Your task to perform on an android device: turn off notifications settings in the gmail app Image 0: 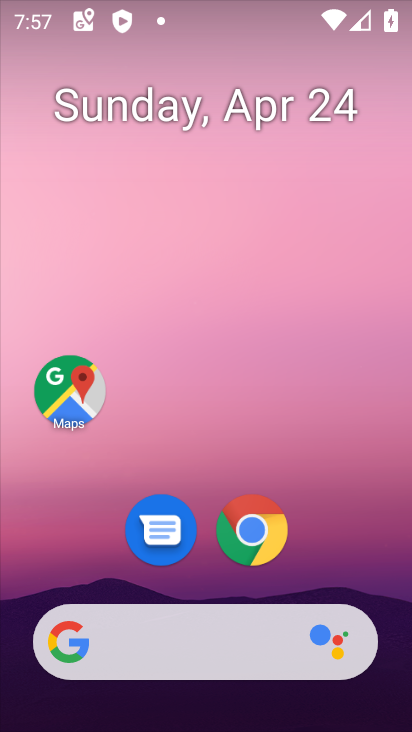
Step 0: drag from (205, 583) to (165, 66)
Your task to perform on an android device: turn off notifications settings in the gmail app Image 1: 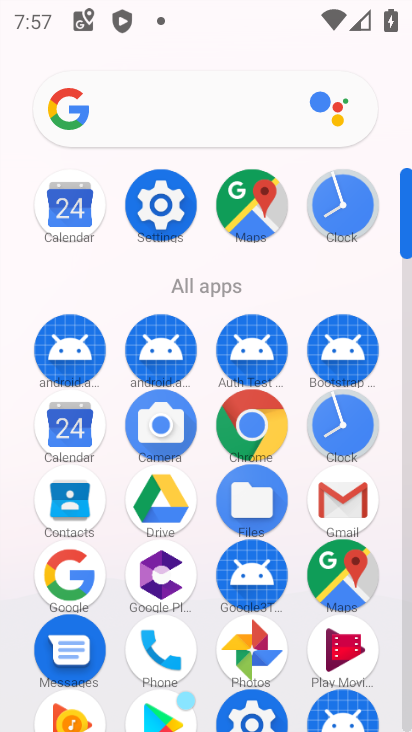
Step 1: click (177, 239)
Your task to perform on an android device: turn off notifications settings in the gmail app Image 2: 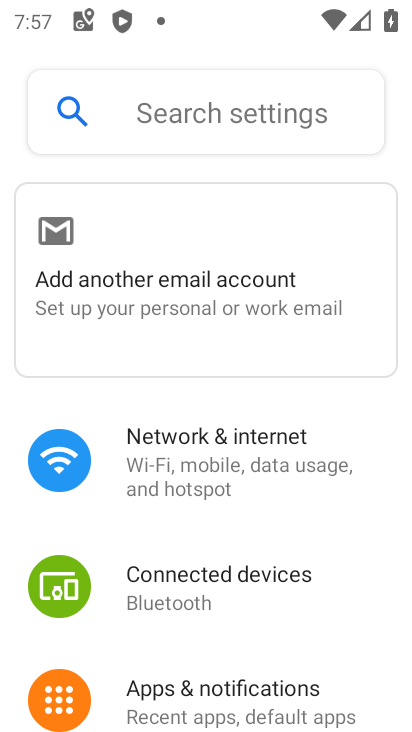
Step 2: click (199, 694)
Your task to perform on an android device: turn off notifications settings in the gmail app Image 3: 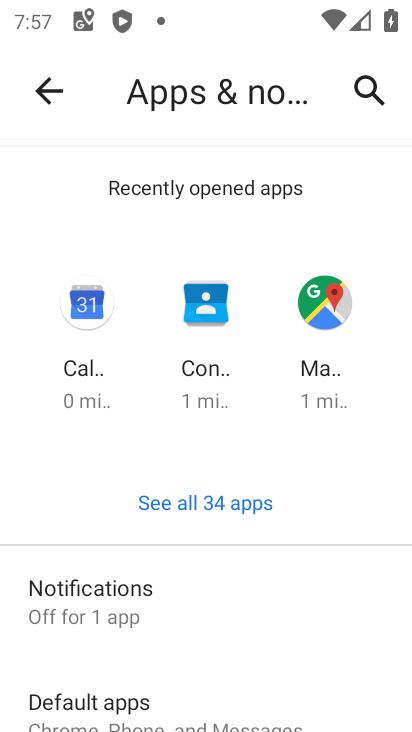
Step 3: click (195, 511)
Your task to perform on an android device: turn off notifications settings in the gmail app Image 4: 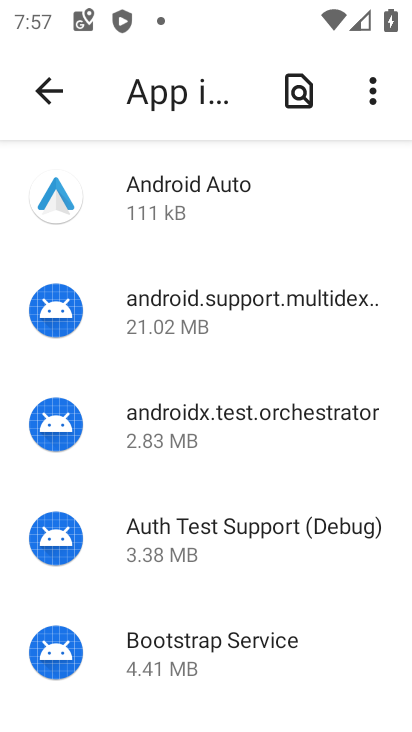
Step 4: drag from (92, 611) to (142, 89)
Your task to perform on an android device: turn off notifications settings in the gmail app Image 5: 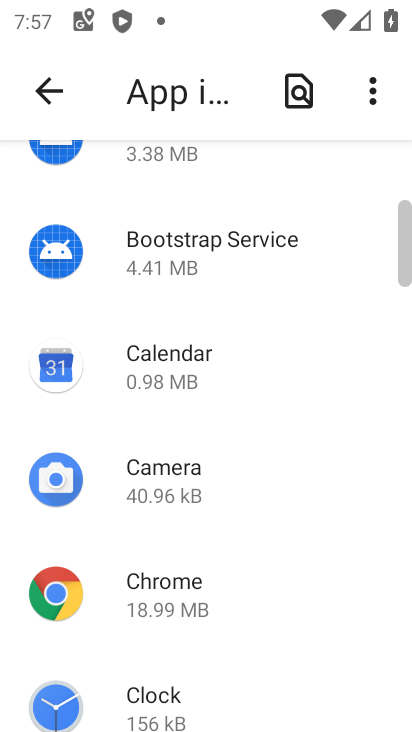
Step 5: drag from (23, 669) to (97, 204)
Your task to perform on an android device: turn off notifications settings in the gmail app Image 6: 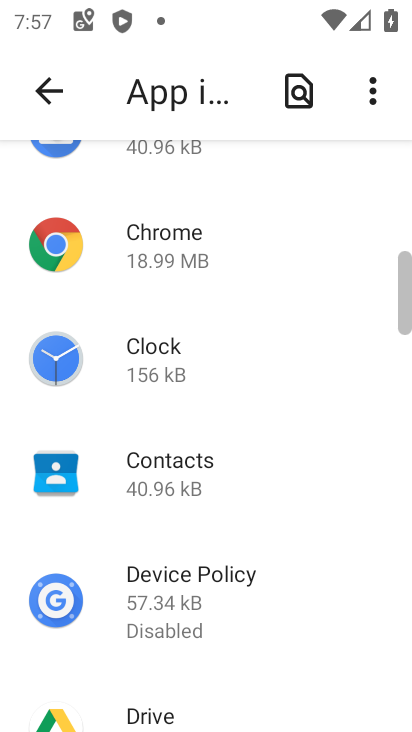
Step 6: drag from (129, 596) to (140, 103)
Your task to perform on an android device: turn off notifications settings in the gmail app Image 7: 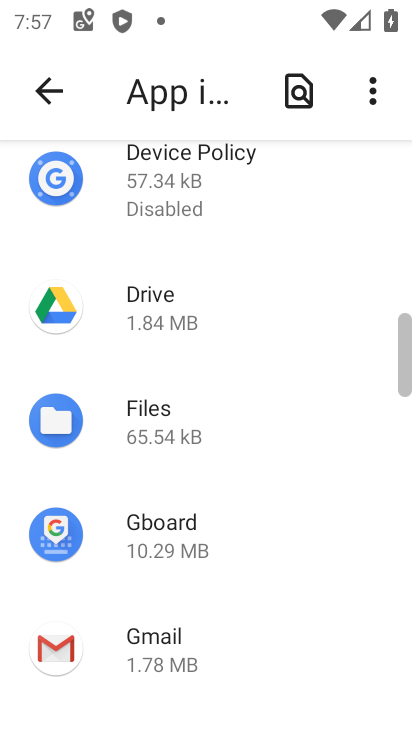
Step 7: click (141, 638)
Your task to perform on an android device: turn off notifications settings in the gmail app Image 8: 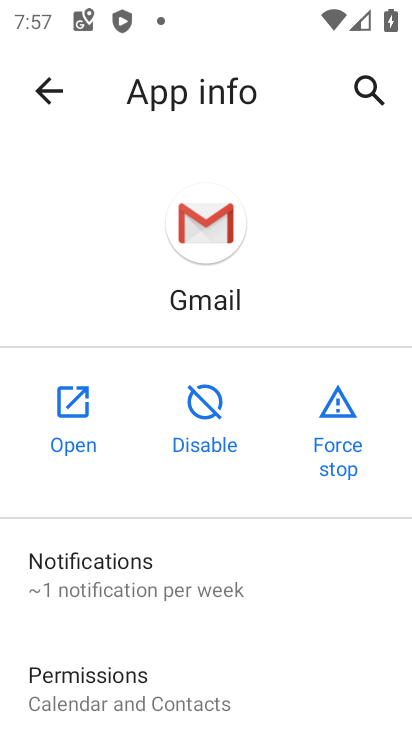
Step 8: click (167, 586)
Your task to perform on an android device: turn off notifications settings in the gmail app Image 9: 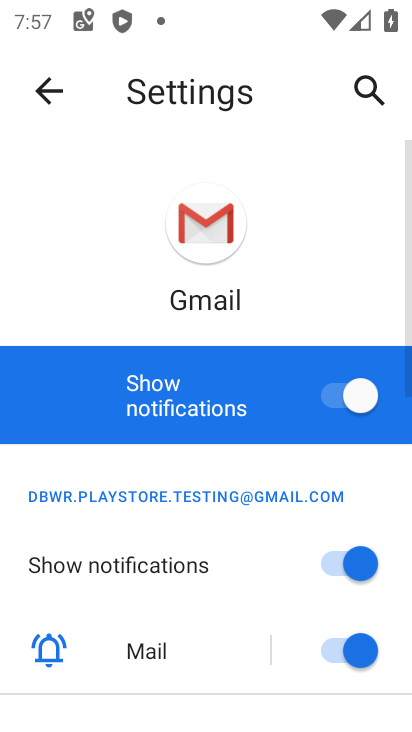
Step 9: click (347, 390)
Your task to perform on an android device: turn off notifications settings in the gmail app Image 10: 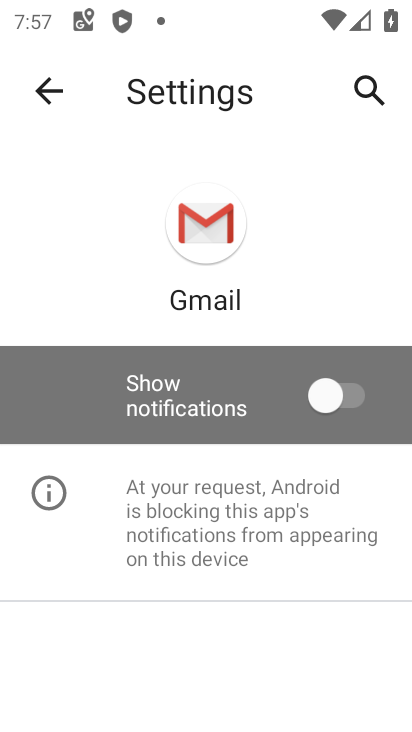
Step 10: task complete